Your task to perform on an android device: change alarm snooze length Image 0: 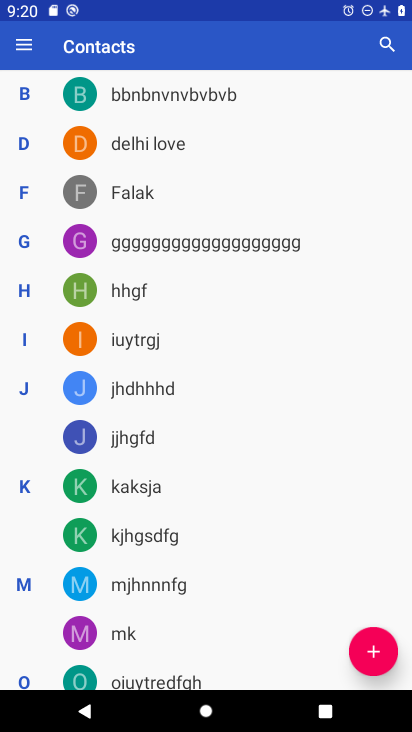
Step 0: press home button
Your task to perform on an android device: change alarm snooze length Image 1: 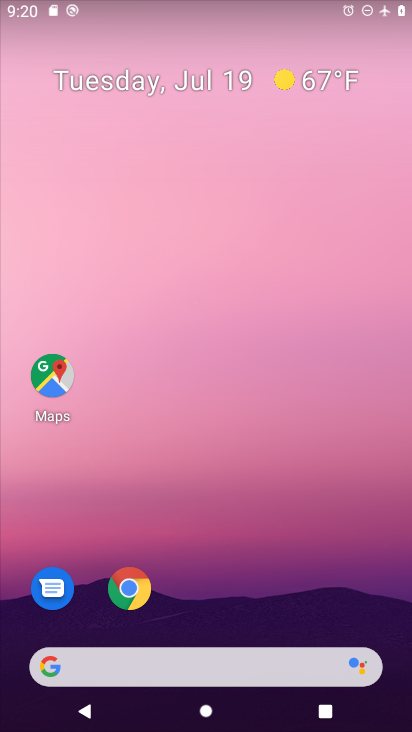
Step 1: drag from (351, 583) to (355, 122)
Your task to perform on an android device: change alarm snooze length Image 2: 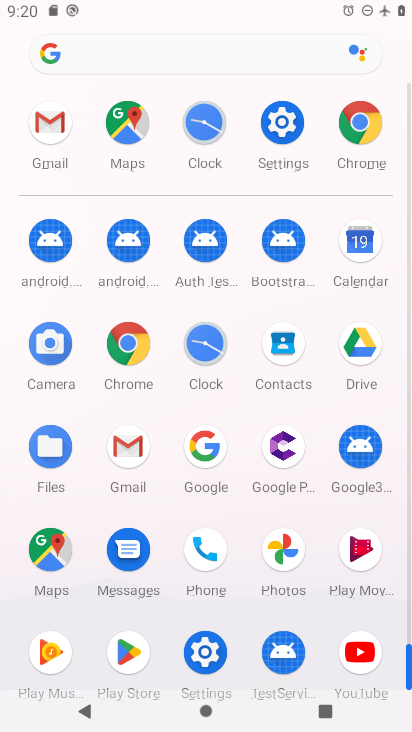
Step 2: click (206, 349)
Your task to perform on an android device: change alarm snooze length Image 3: 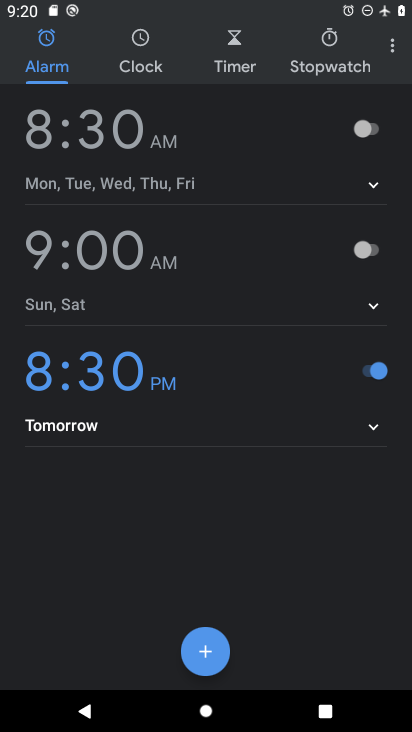
Step 3: click (394, 52)
Your task to perform on an android device: change alarm snooze length Image 4: 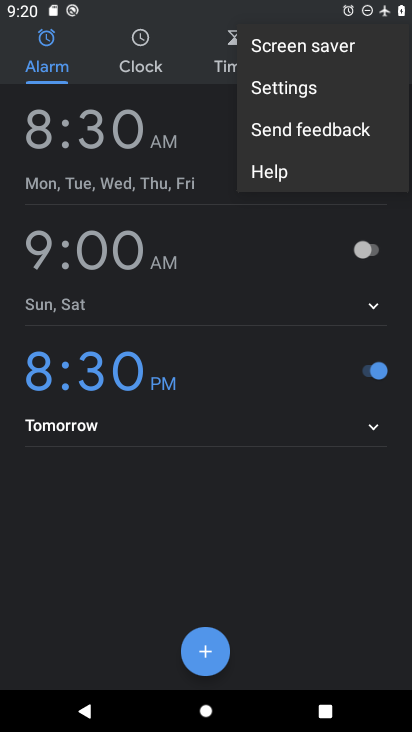
Step 4: click (346, 87)
Your task to perform on an android device: change alarm snooze length Image 5: 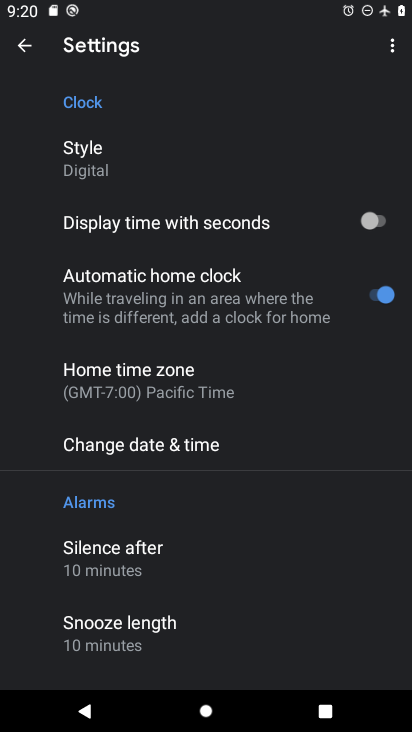
Step 5: drag from (312, 482) to (339, 280)
Your task to perform on an android device: change alarm snooze length Image 6: 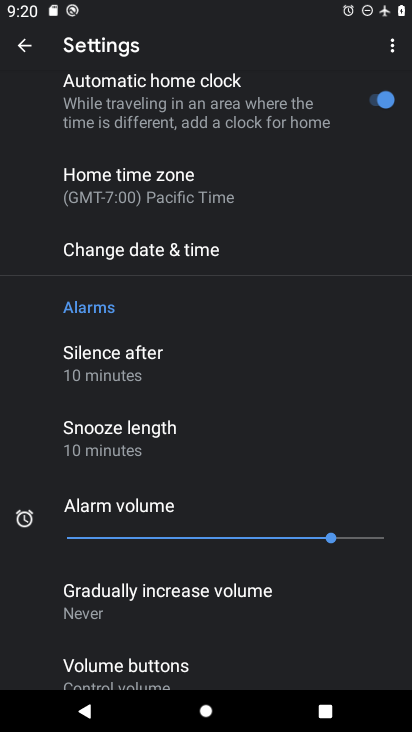
Step 6: drag from (325, 521) to (352, 320)
Your task to perform on an android device: change alarm snooze length Image 7: 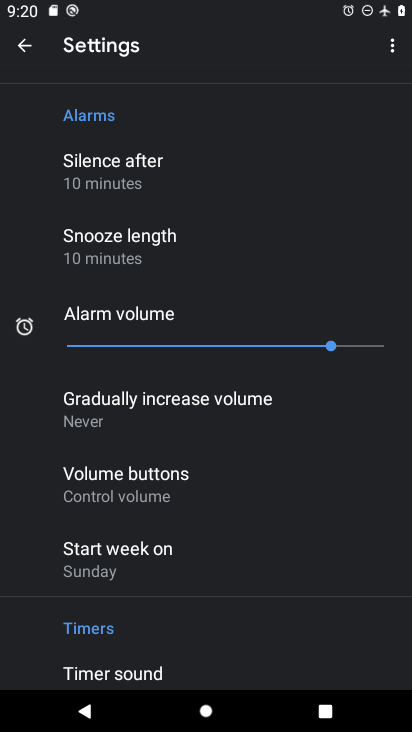
Step 7: drag from (336, 551) to (342, 358)
Your task to perform on an android device: change alarm snooze length Image 8: 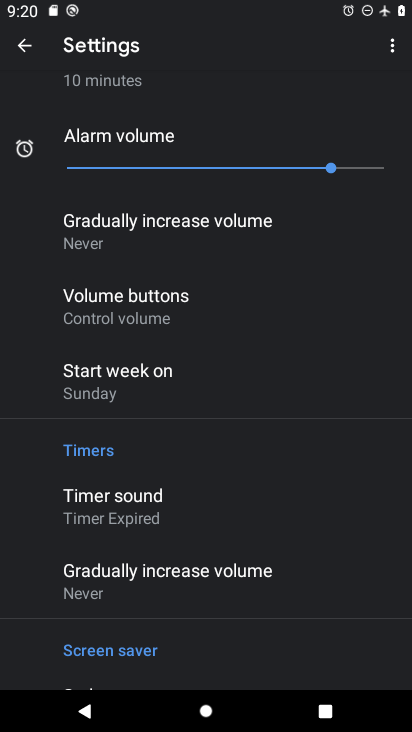
Step 8: drag from (334, 313) to (341, 412)
Your task to perform on an android device: change alarm snooze length Image 9: 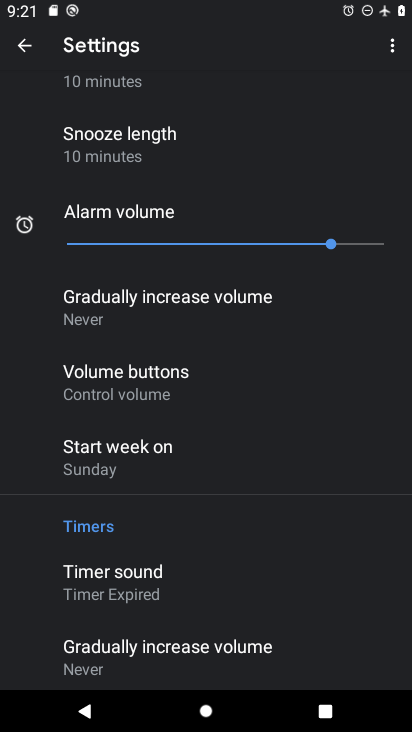
Step 9: drag from (341, 199) to (355, 362)
Your task to perform on an android device: change alarm snooze length Image 10: 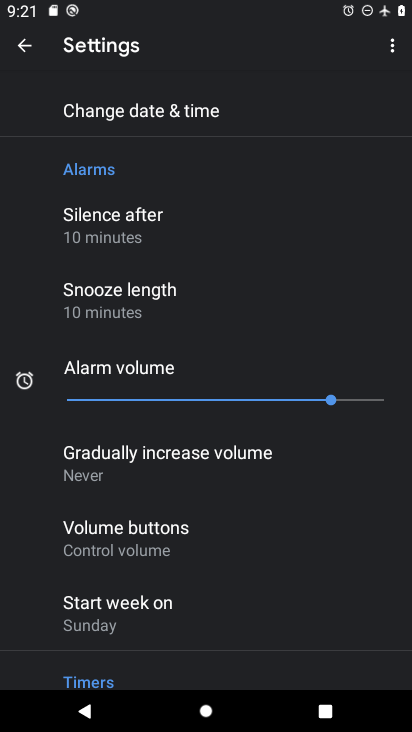
Step 10: drag from (366, 235) to (366, 370)
Your task to perform on an android device: change alarm snooze length Image 11: 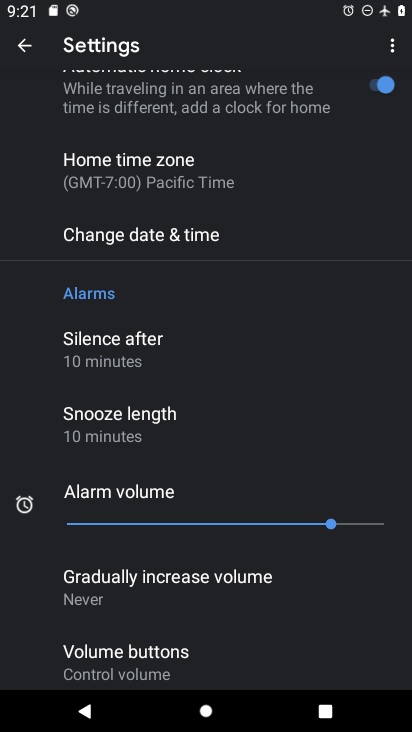
Step 11: click (187, 427)
Your task to perform on an android device: change alarm snooze length Image 12: 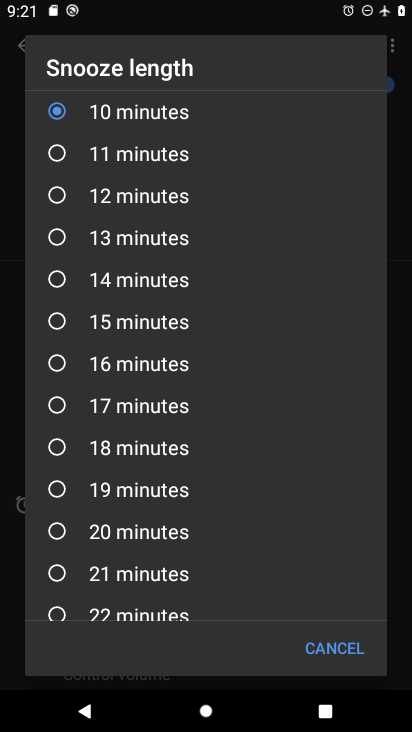
Step 12: click (183, 407)
Your task to perform on an android device: change alarm snooze length Image 13: 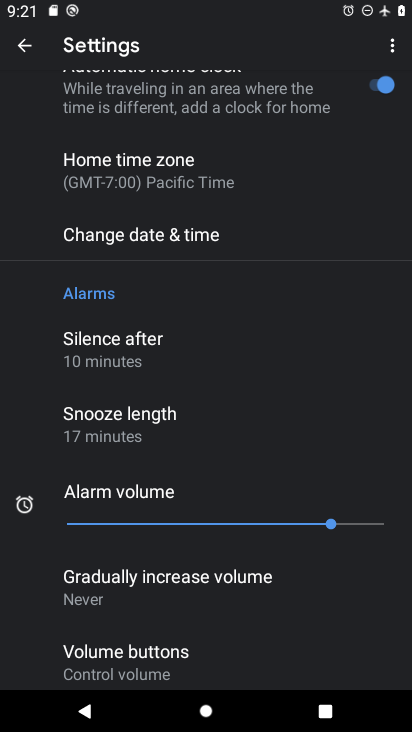
Step 13: task complete